Your task to perform on an android device: toggle wifi Image 0: 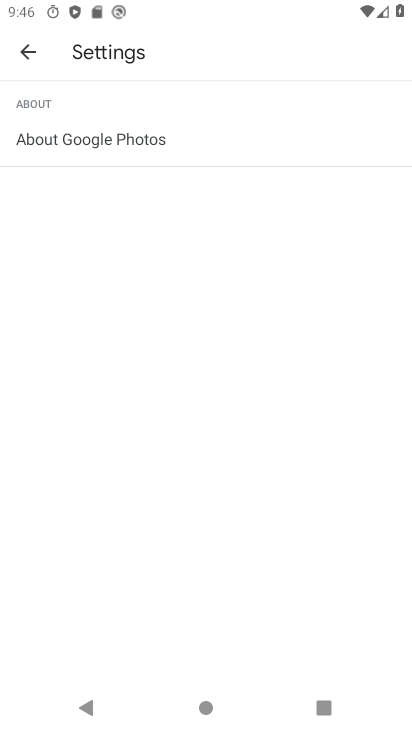
Step 0: press home button
Your task to perform on an android device: toggle wifi Image 1: 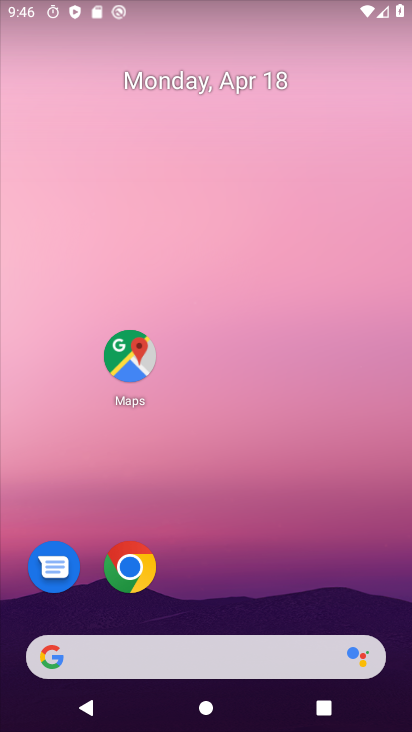
Step 1: drag from (277, 615) to (249, 337)
Your task to perform on an android device: toggle wifi Image 2: 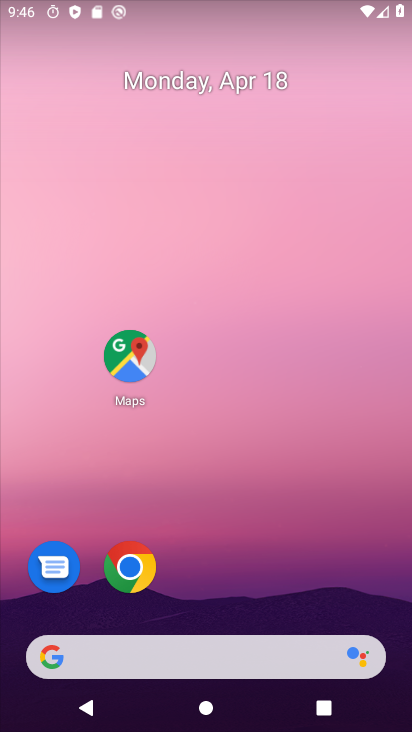
Step 2: drag from (267, 628) to (345, 260)
Your task to perform on an android device: toggle wifi Image 3: 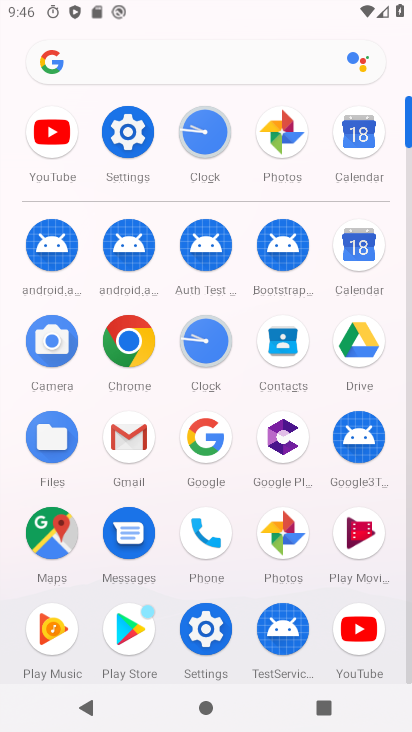
Step 3: click (113, 149)
Your task to perform on an android device: toggle wifi Image 4: 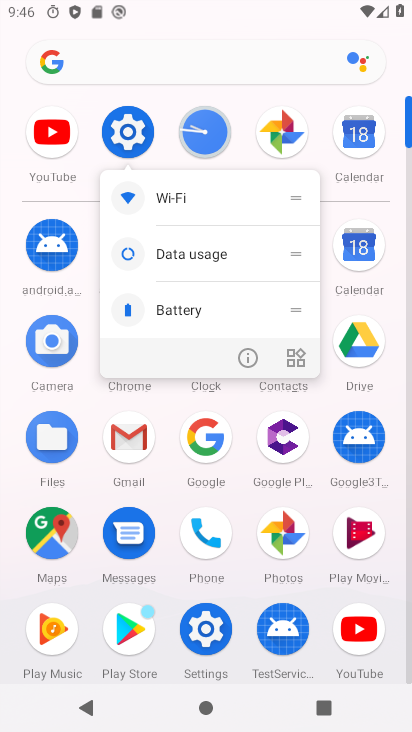
Step 4: click (133, 147)
Your task to perform on an android device: toggle wifi Image 5: 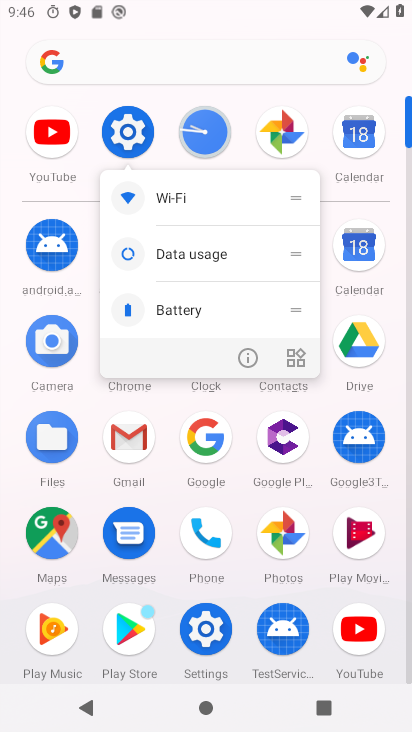
Step 5: click (133, 147)
Your task to perform on an android device: toggle wifi Image 6: 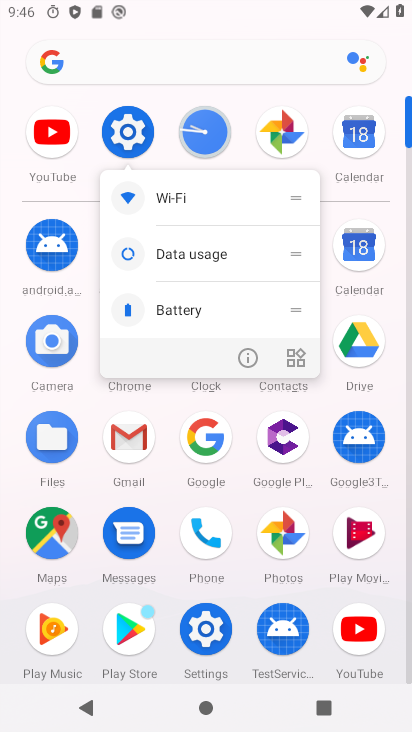
Step 6: click (133, 147)
Your task to perform on an android device: toggle wifi Image 7: 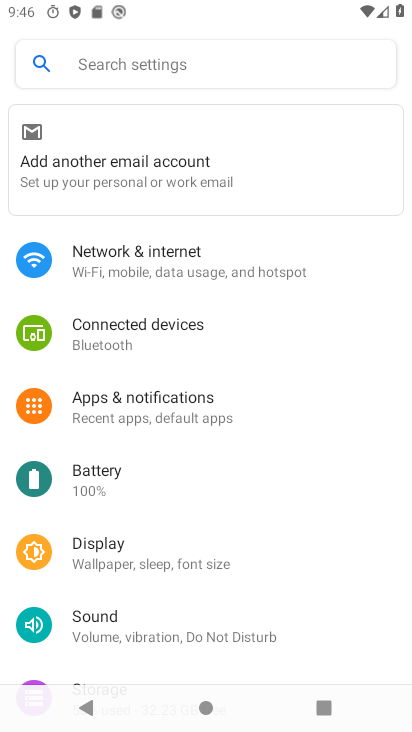
Step 7: click (175, 272)
Your task to perform on an android device: toggle wifi Image 8: 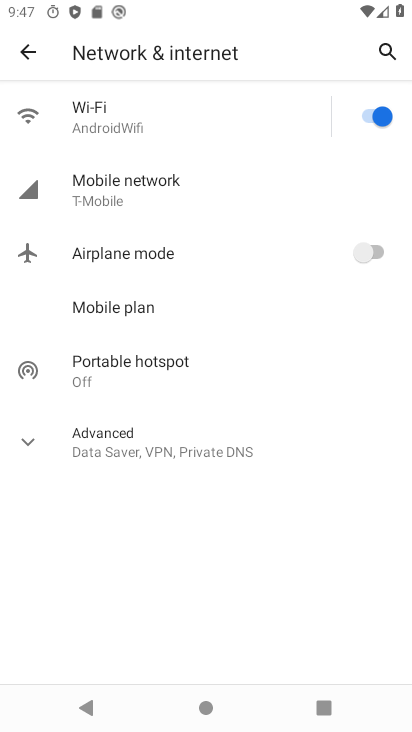
Step 8: click (222, 115)
Your task to perform on an android device: toggle wifi Image 9: 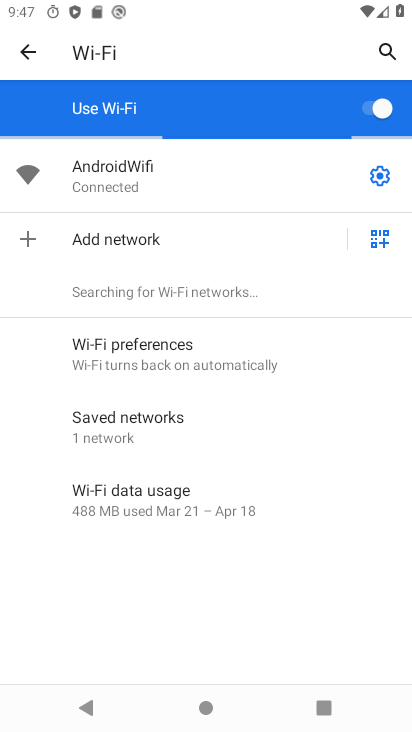
Step 9: task complete